Your task to perform on an android device: Open internet settings Image 0: 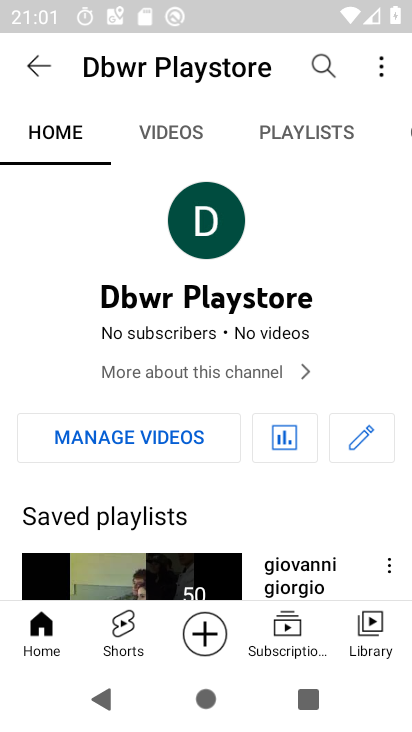
Step 0: press home button
Your task to perform on an android device: Open internet settings Image 1: 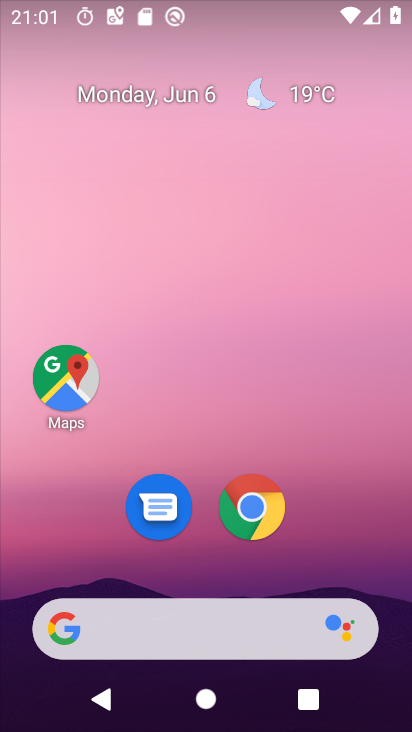
Step 1: drag from (312, 553) to (279, 3)
Your task to perform on an android device: Open internet settings Image 2: 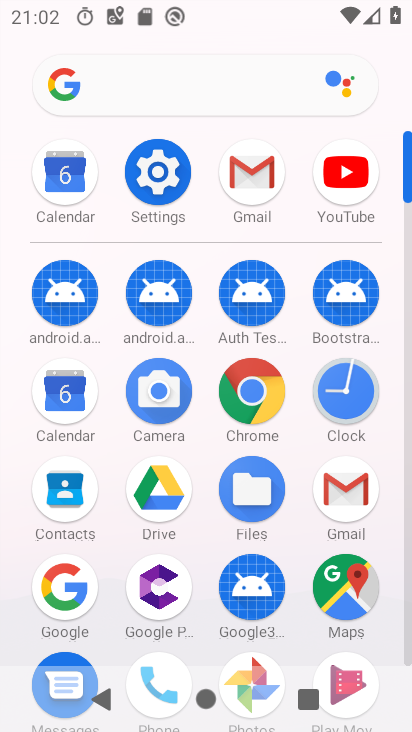
Step 2: click (149, 204)
Your task to perform on an android device: Open internet settings Image 3: 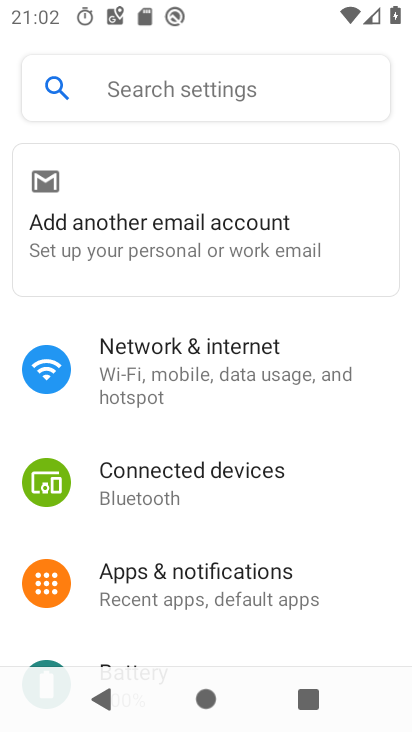
Step 3: click (198, 383)
Your task to perform on an android device: Open internet settings Image 4: 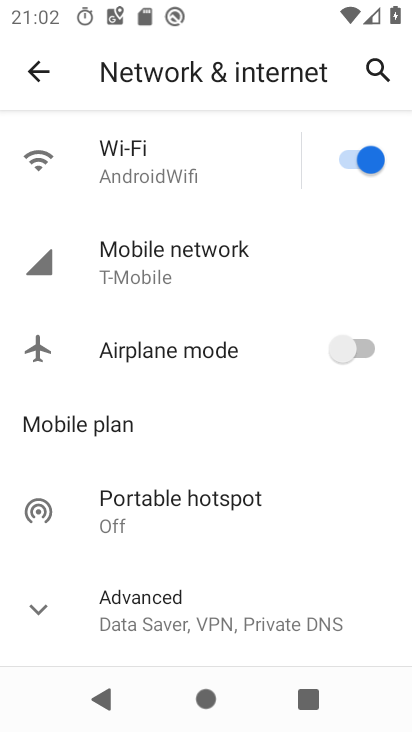
Step 4: task complete